Your task to perform on an android device: change alarm snooze length Image 0: 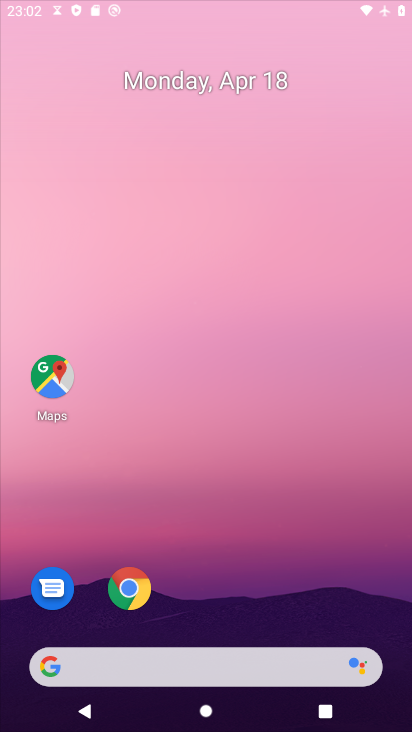
Step 0: click (332, 4)
Your task to perform on an android device: change alarm snooze length Image 1: 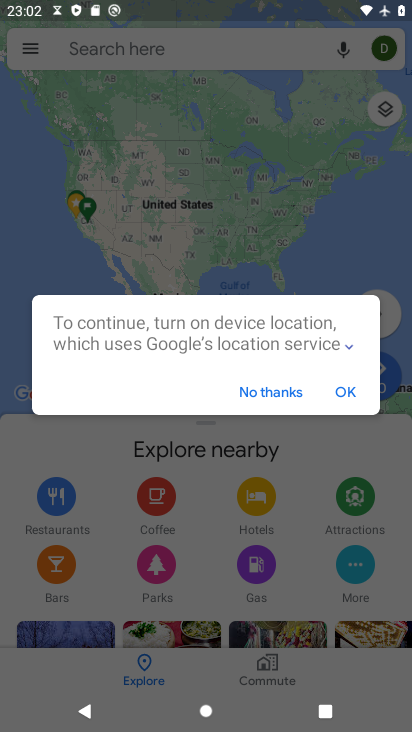
Step 1: press back button
Your task to perform on an android device: change alarm snooze length Image 2: 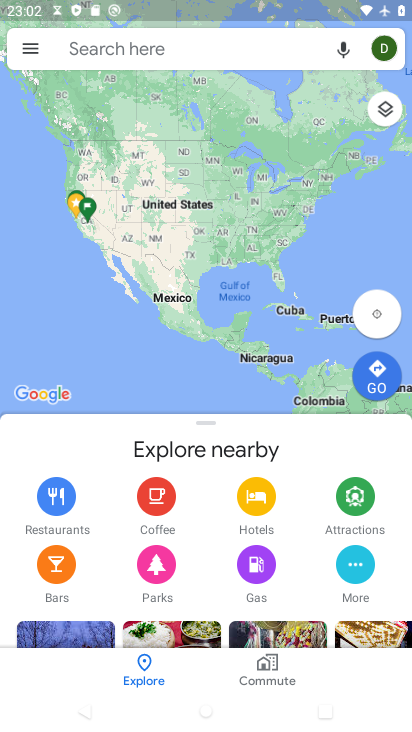
Step 2: press home button
Your task to perform on an android device: change alarm snooze length Image 3: 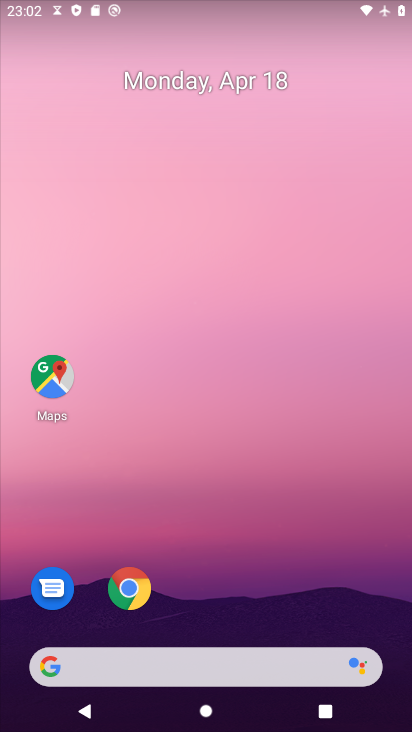
Step 3: drag from (231, 525) to (225, 36)
Your task to perform on an android device: change alarm snooze length Image 4: 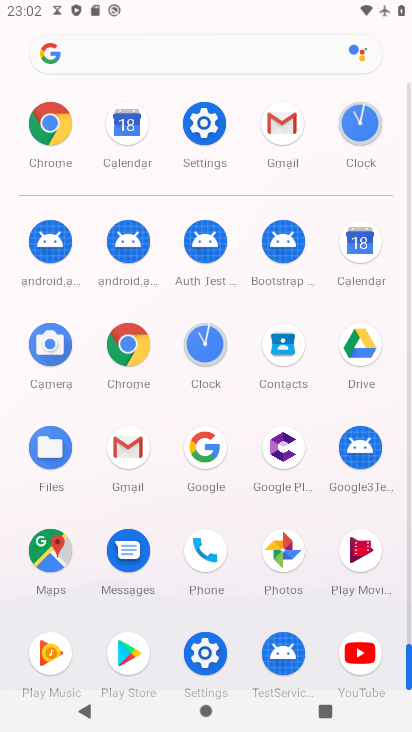
Step 4: drag from (3, 507) to (7, 298)
Your task to perform on an android device: change alarm snooze length Image 5: 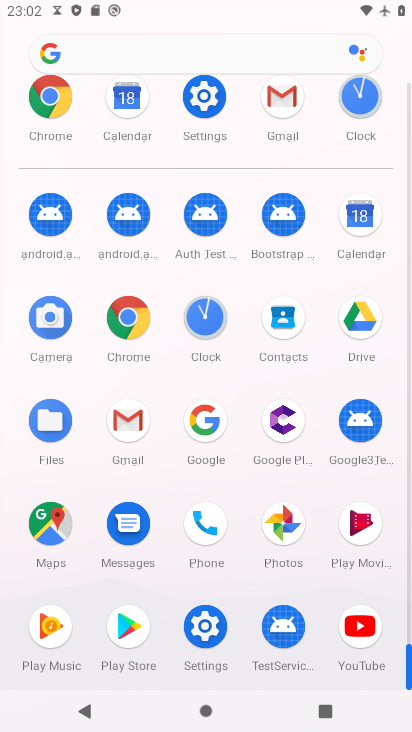
Step 5: drag from (7, 502) to (15, 341)
Your task to perform on an android device: change alarm snooze length Image 6: 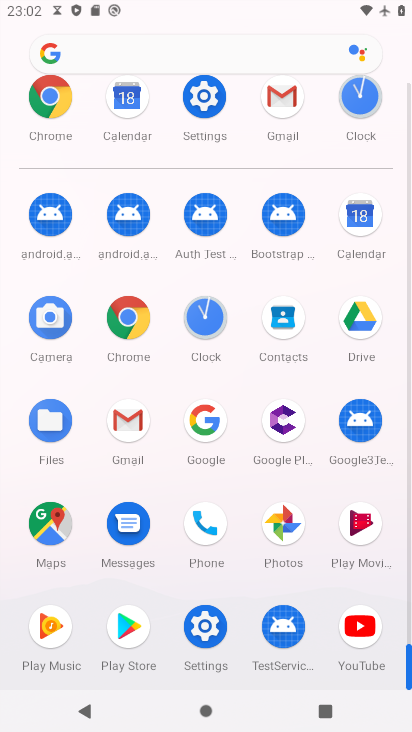
Step 6: click (203, 316)
Your task to perform on an android device: change alarm snooze length Image 7: 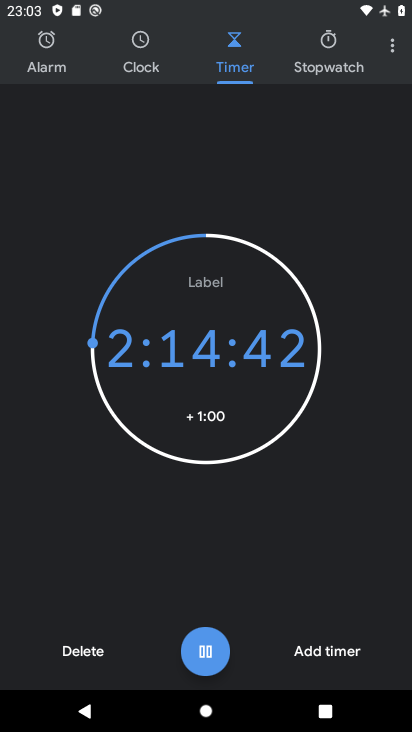
Step 7: click (390, 53)
Your task to perform on an android device: change alarm snooze length Image 8: 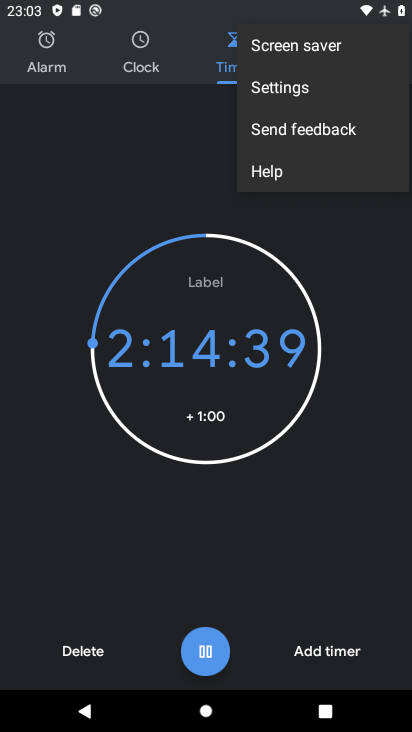
Step 8: click (312, 83)
Your task to perform on an android device: change alarm snooze length Image 9: 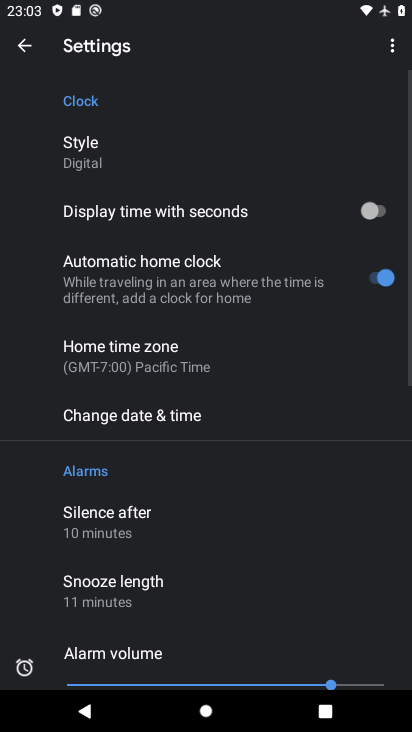
Step 9: drag from (190, 420) to (247, 85)
Your task to perform on an android device: change alarm snooze length Image 10: 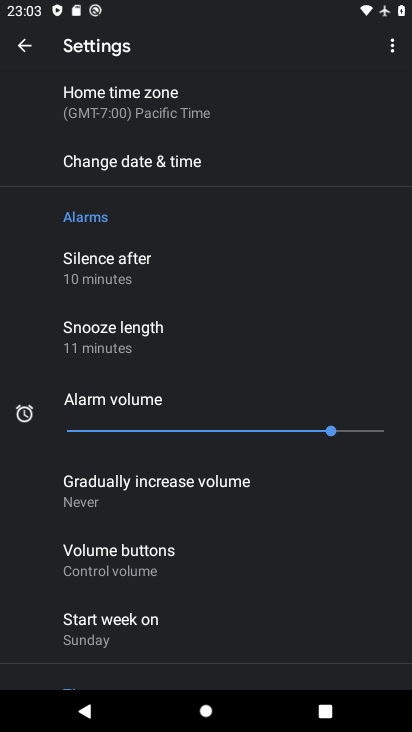
Step 10: click (126, 325)
Your task to perform on an android device: change alarm snooze length Image 11: 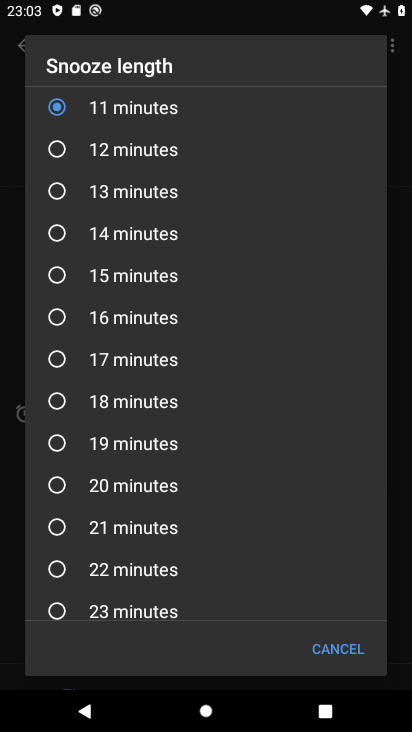
Step 11: click (114, 145)
Your task to perform on an android device: change alarm snooze length Image 12: 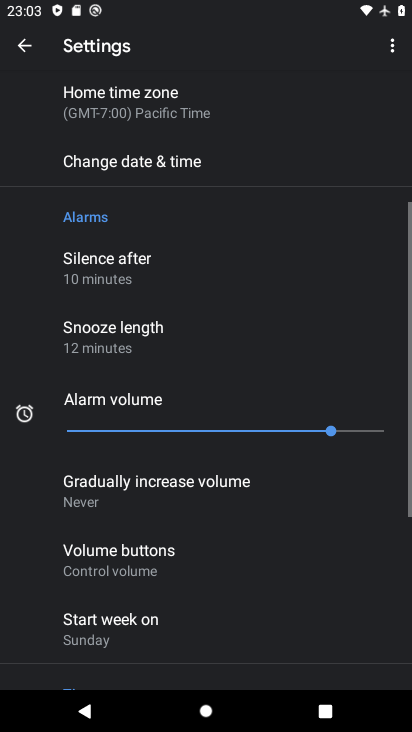
Step 12: task complete